Your task to perform on an android device: What is the news today? Image 0: 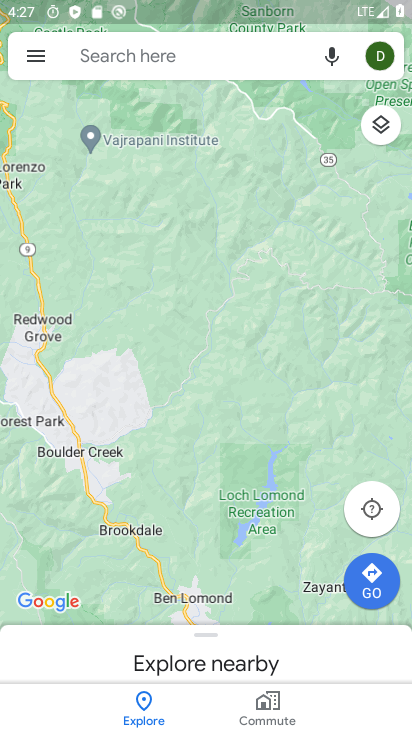
Step 0: press home button
Your task to perform on an android device: What is the news today? Image 1: 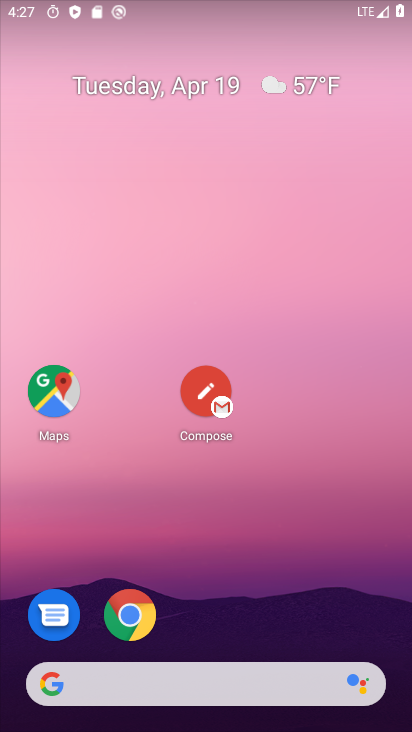
Step 1: drag from (330, 633) to (341, 0)
Your task to perform on an android device: What is the news today? Image 2: 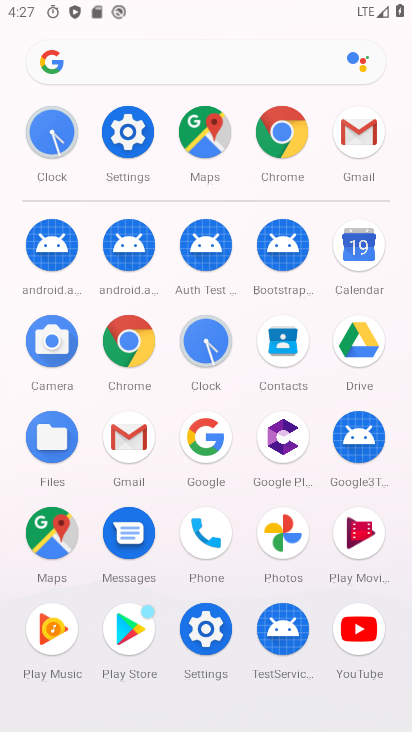
Step 2: click (111, 330)
Your task to perform on an android device: What is the news today? Image 3: 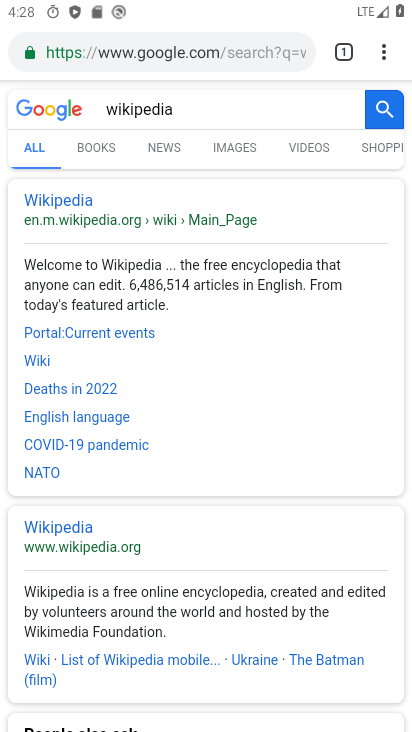
Step 3: click (301, 101)
Your task to perform on an android device: What is the news today? Image 4: 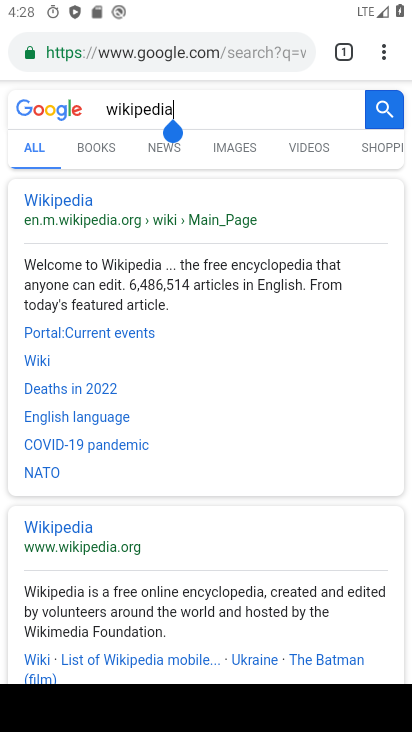
Step 4: click (224, 100)
Your task to perform on an android device: What is the news today? Image 5: 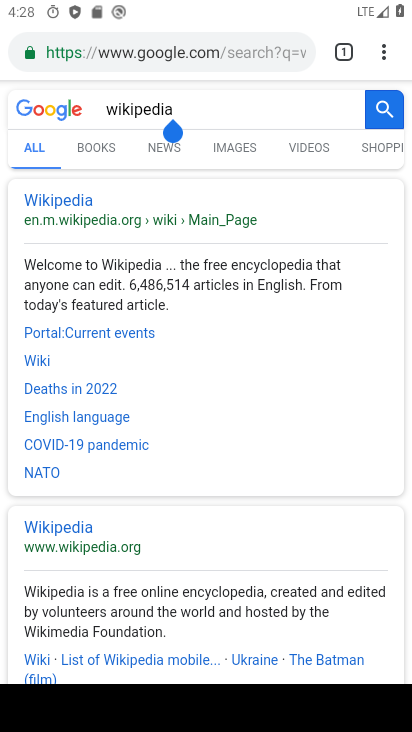
Step 5: click (224, 100)
Your task to perform on an android device: What is the news today? Image 6: 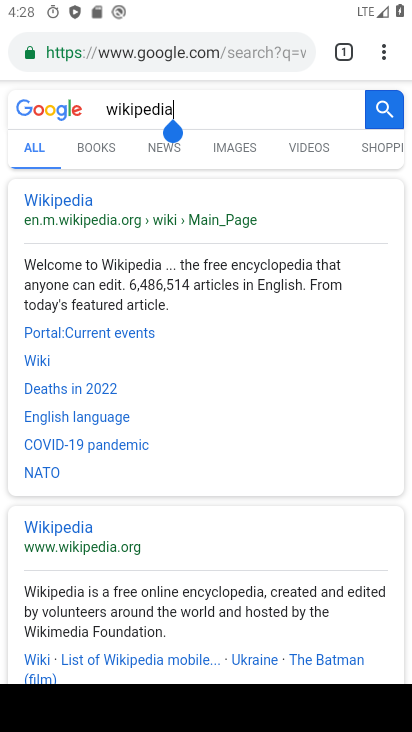
Step 6: click (164, 103)
Your task to perform on an android device: What is the news today? Image 7: 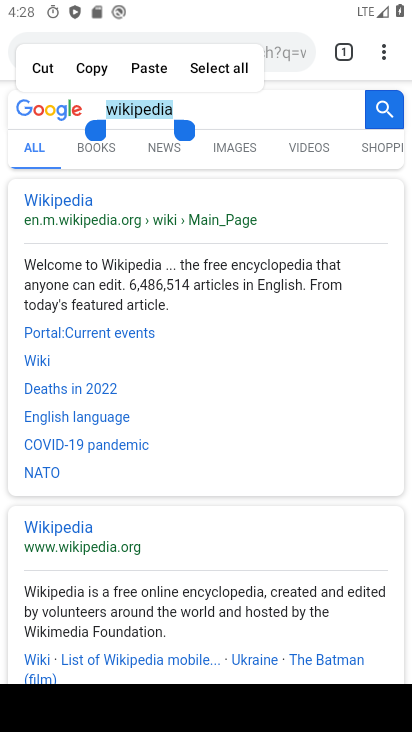
Step 7: click (275, 43)
Your task to perform on an android device: What is the news today? Image 8: 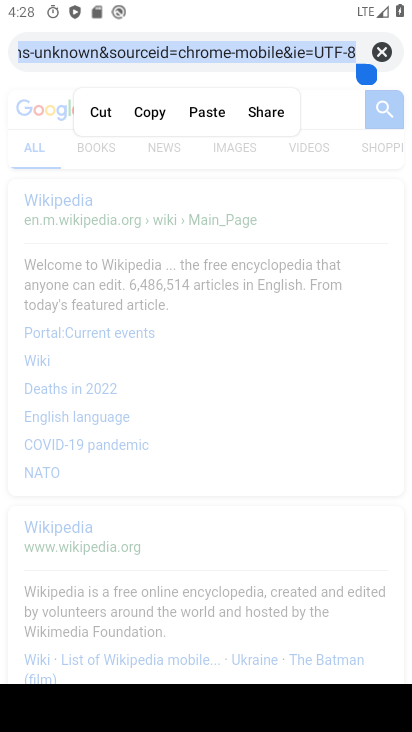
Step 8: click (384, 49)
Your task to perform on an android device: What is the news today? Image 9: 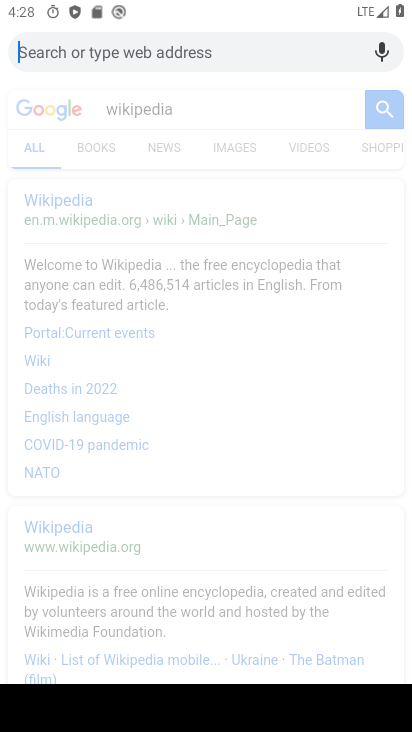
Step 9: type "news today"
Your task to perform on an android device: What is the news today? Image 10: 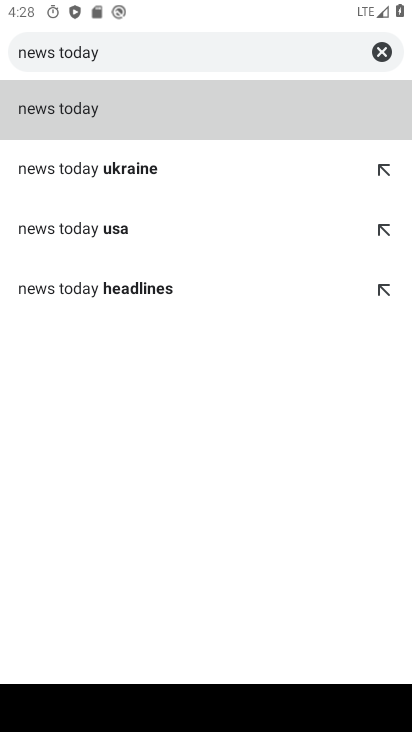
Step 10: click (225, 123)
Your task to perform on an android device: What is the news today? Image 11: 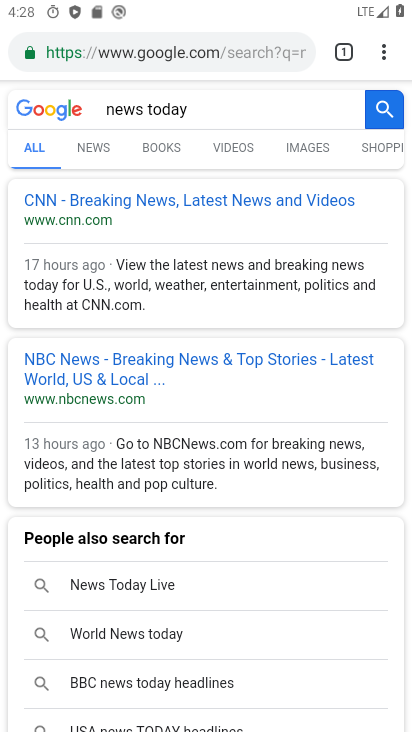
Step 11: task complete